Your task to perform on an android device: turn on showing notifications on the lock screen Image 0: 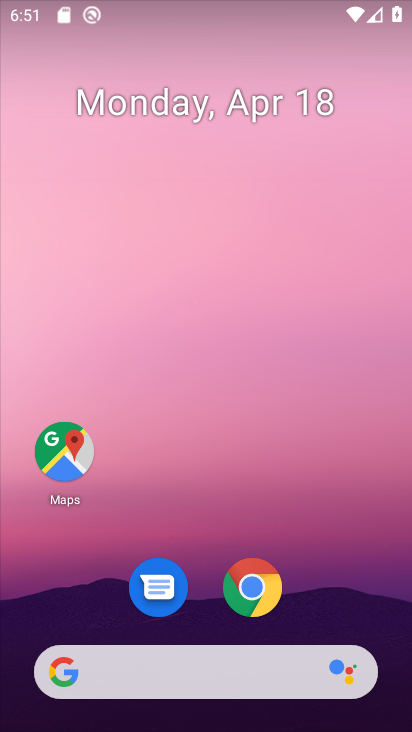
Step 0: drag from (369, 564) to (332, 144)
Your task to perform on an android device: turn on showing notifications on the lock screen Image 1: 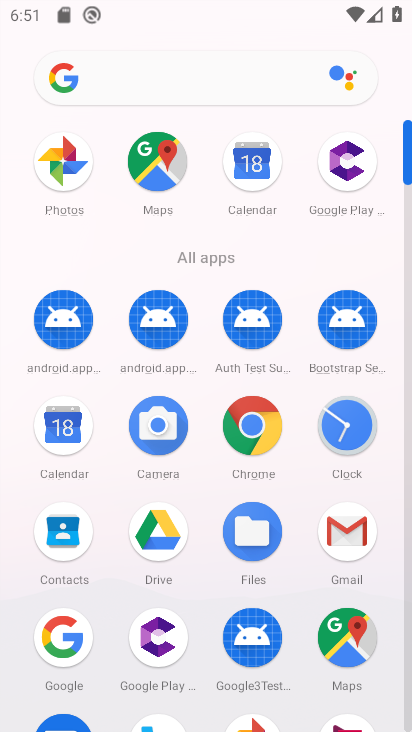
Step 1: click (406, 463)
Your task to perform on an android device: turn on showing notifications on the lock screen Image 2: 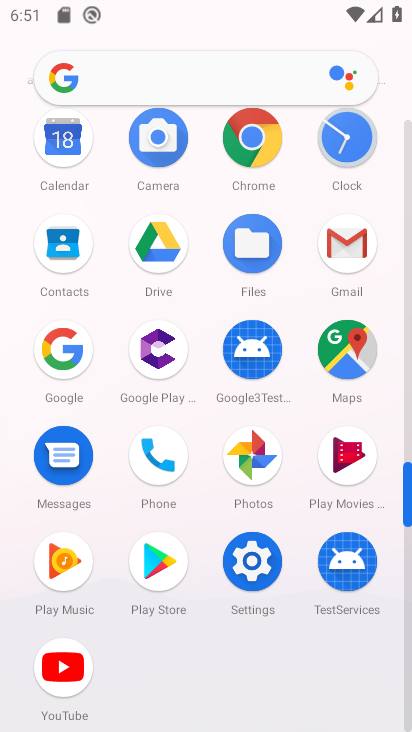
Step 2: click (263, 559)
Your task to perform on an android device: turn on showing notifications on the lock screen Image 3: 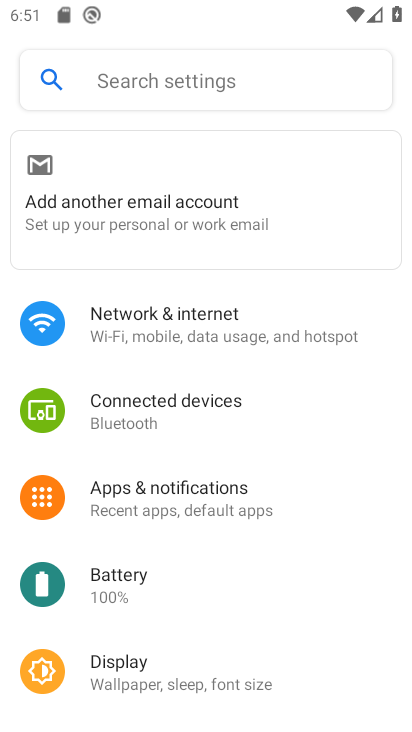
Step 3: drag from (226, 619) to (261, 472)
Your task to perform on an android device: turn on showing notifications on the lock screen Image 4: 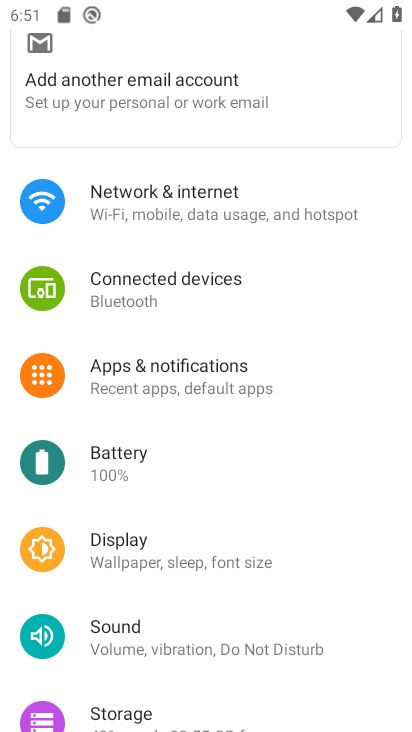
Step 4: click (269, 388)
Your task to perform on an android device: turn on showing notifications on the lock screen Image 5: 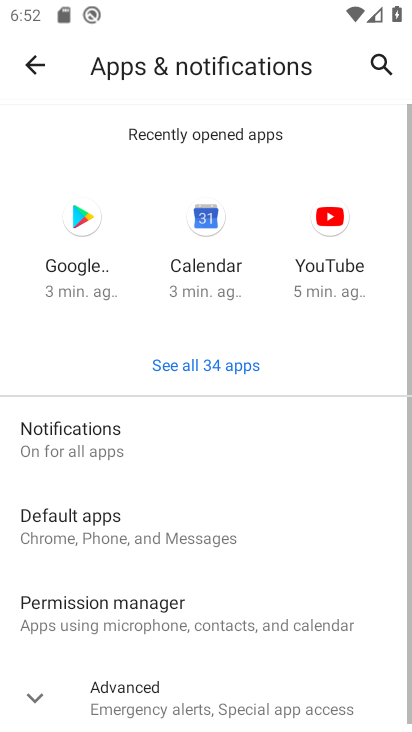
Step 5: drag from (251, 688) to (306, 309)
Your task to perform on an android device: turn on showing notifications on the lock screen Image 6: 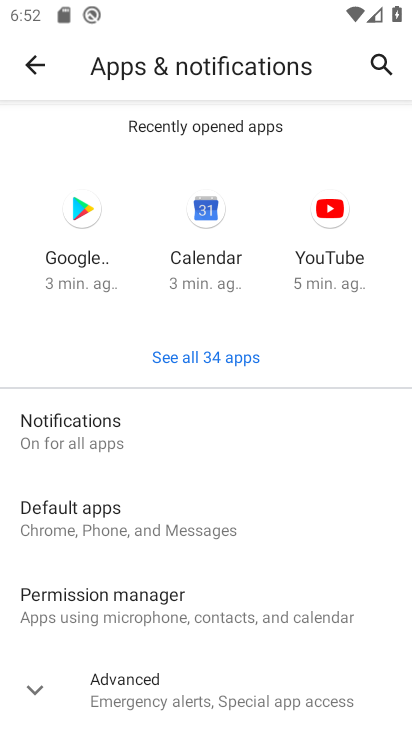
Step 6: drag from (258, 620) to (295, 350)
Your task to perform on an android device: turn on showing notifications on the lock screen Image 7: 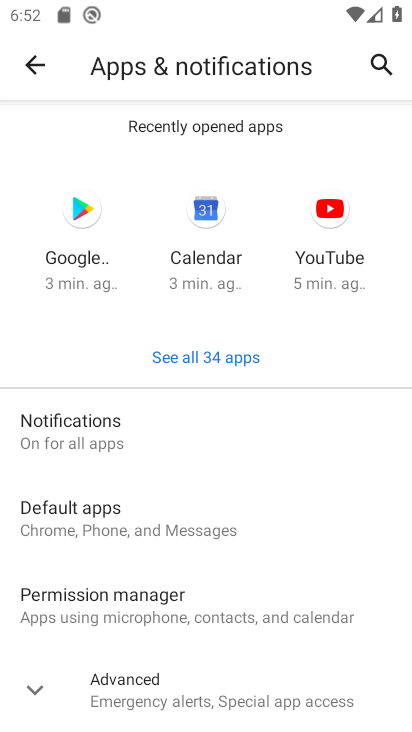
Step 7: click (262, 427)
Your task to perform on an android device: turn on showing notifications on the lock screen Image 8: 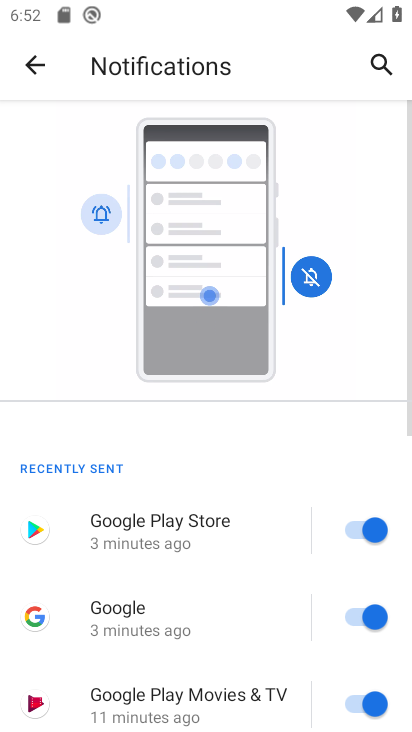
Step 8: drag from (251, 600) to (275, 237)
Your task to perform on an android device: turn on showing notifications on the lock screen Image 9: 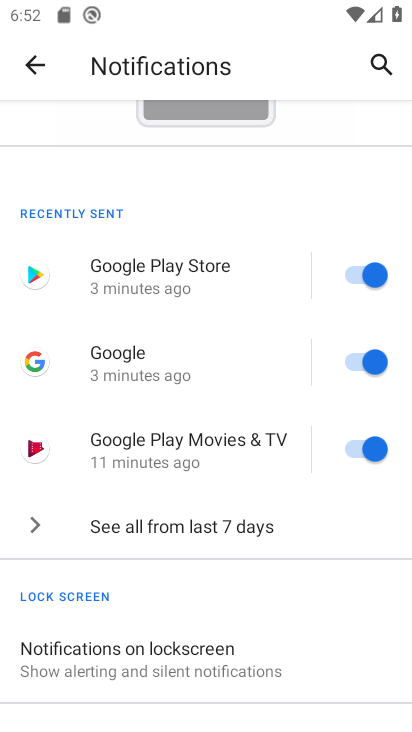
Step 9: click (216, 640)
Your task to perform on an android device: turn on showing notifications on the lock screen Image 10: 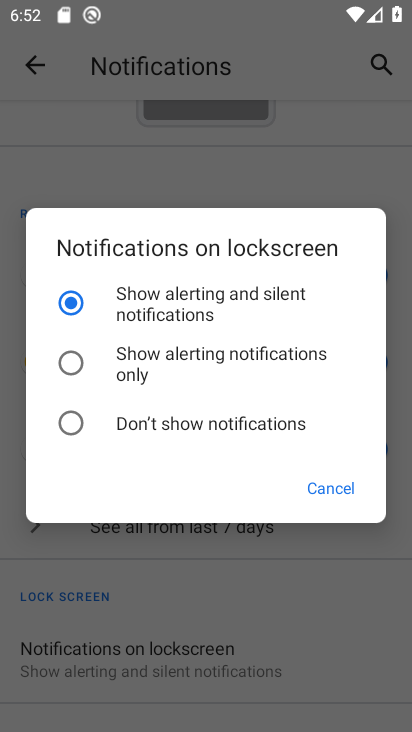
Step 10: click (222, 362)
Your task to perform on an android device: turn on showing notifications on the lock screen Image 11: 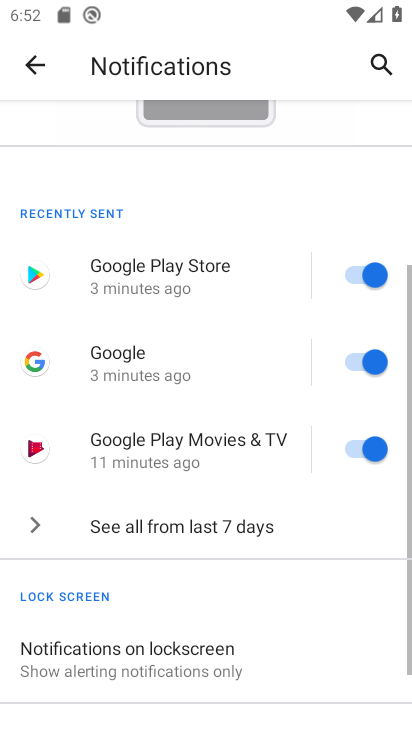
Step 11: task complete